Your task to perform on an android device: Open Reddit.com Image 0: 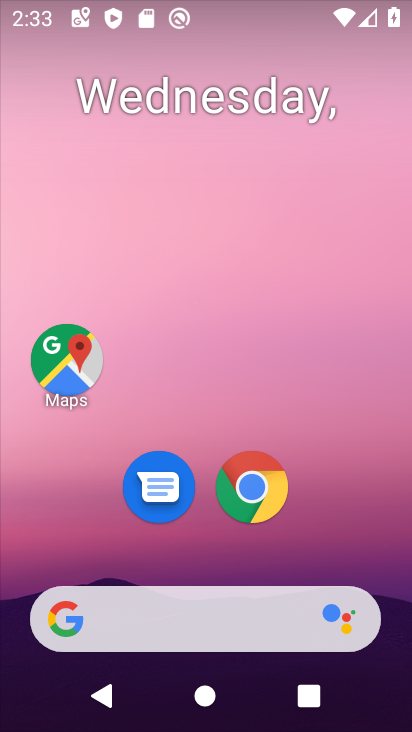
Step 0: click (244, 508)
Your task to perform on an android device: Open Reddit.com Image 1: 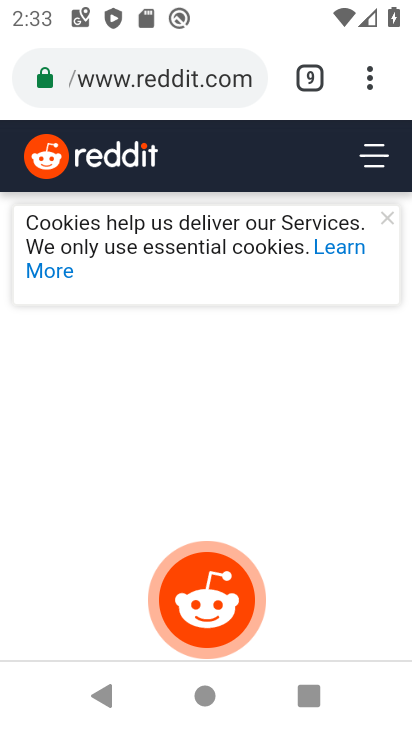
Step 1: task complete